Your task to perform on an android device: uninstall "VLC for Android" Image 0: 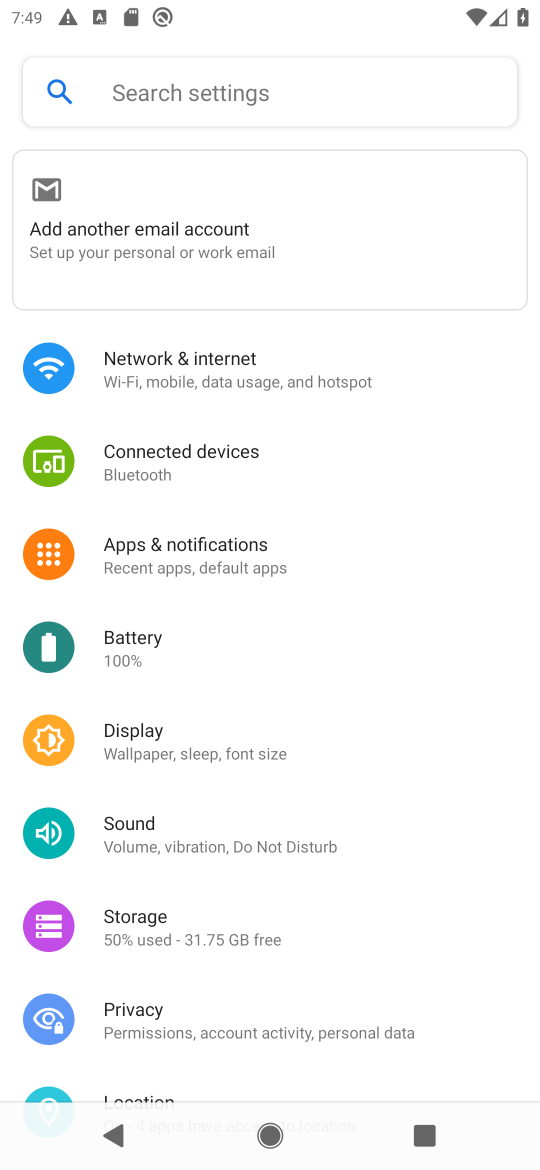
Step 0: press home button
Your task to perform on an android device: uninstall "VLC for Android" Image 1: 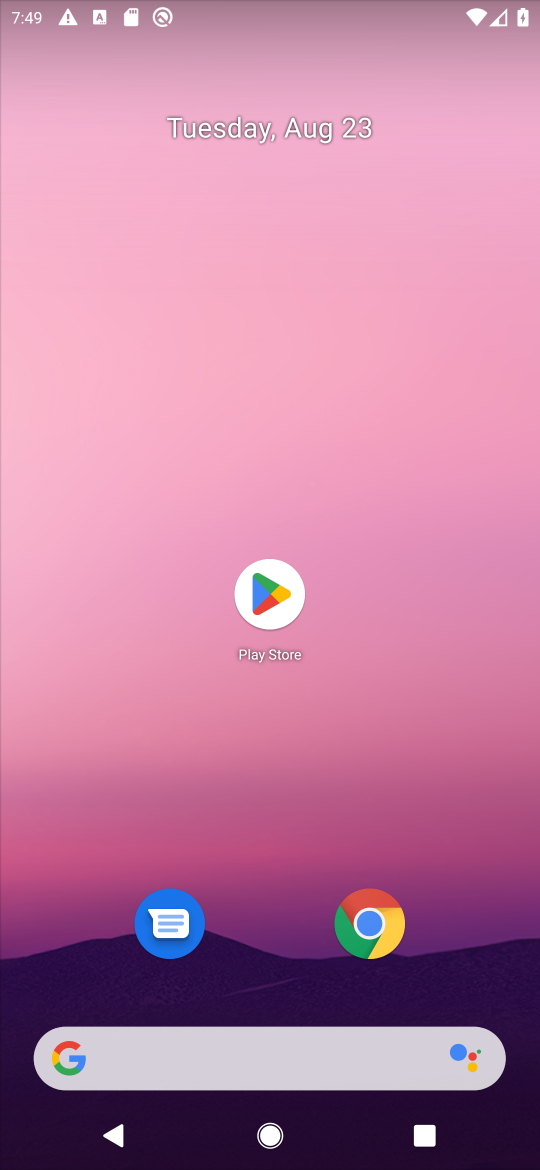
Step 1: click (272, 593)
Your task to perform on an android device: uninstall "VLC for Android" Image 2: 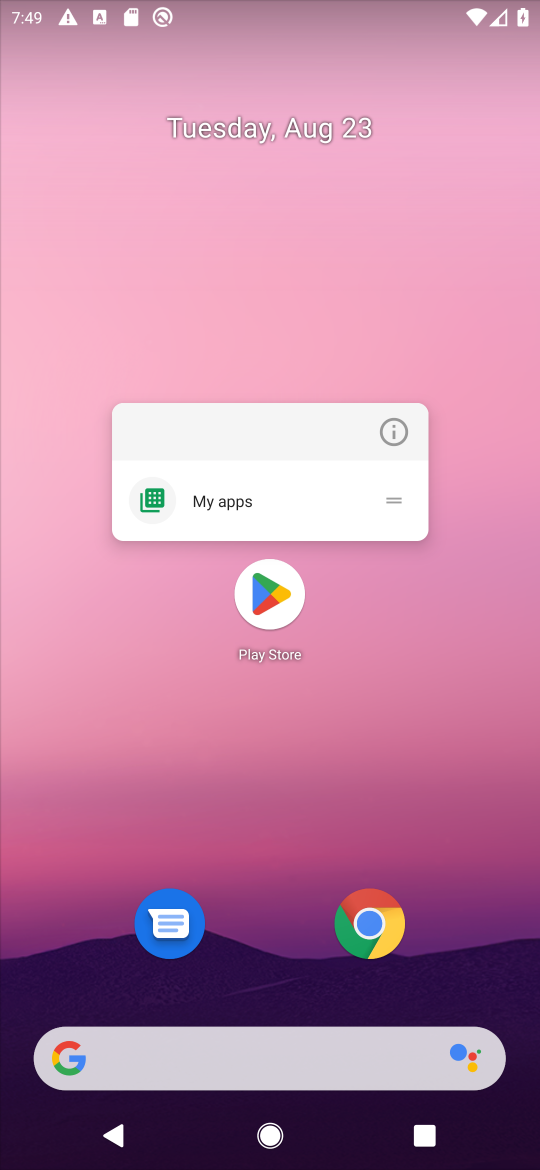
Step 2: click (263, 599)
Your task to perform on an android device: uninstall "VLC for Android" Image 3: 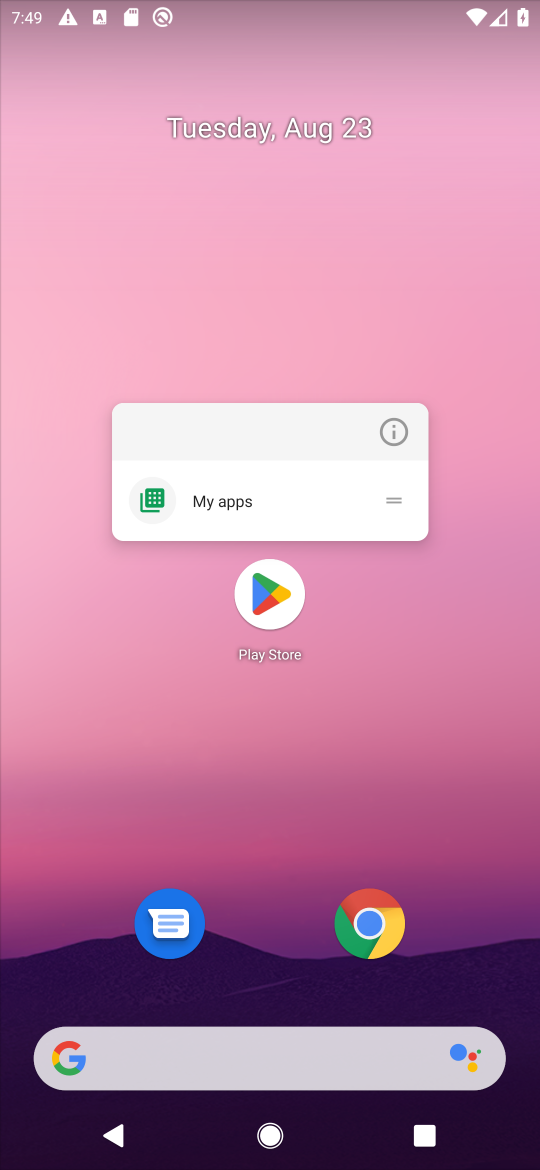
Step 3: click (262, 598)
Your task to perform on an android device: uninstall "VLC for Android" Image 4: 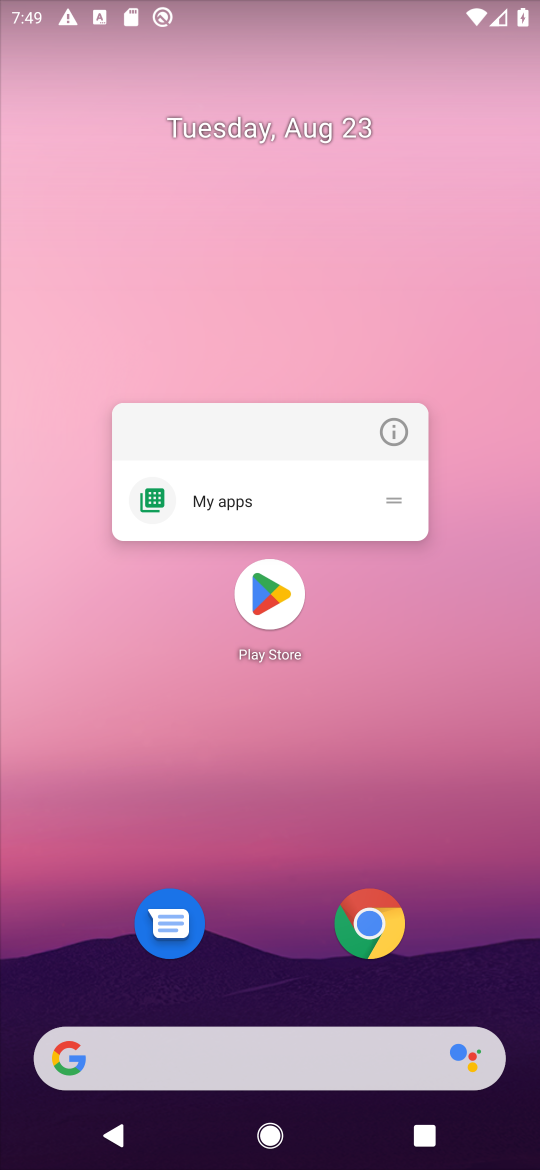
Step 4: click (260, 601)
Your task to perform on an android device: uninstall "VLC for Android" Image 5: 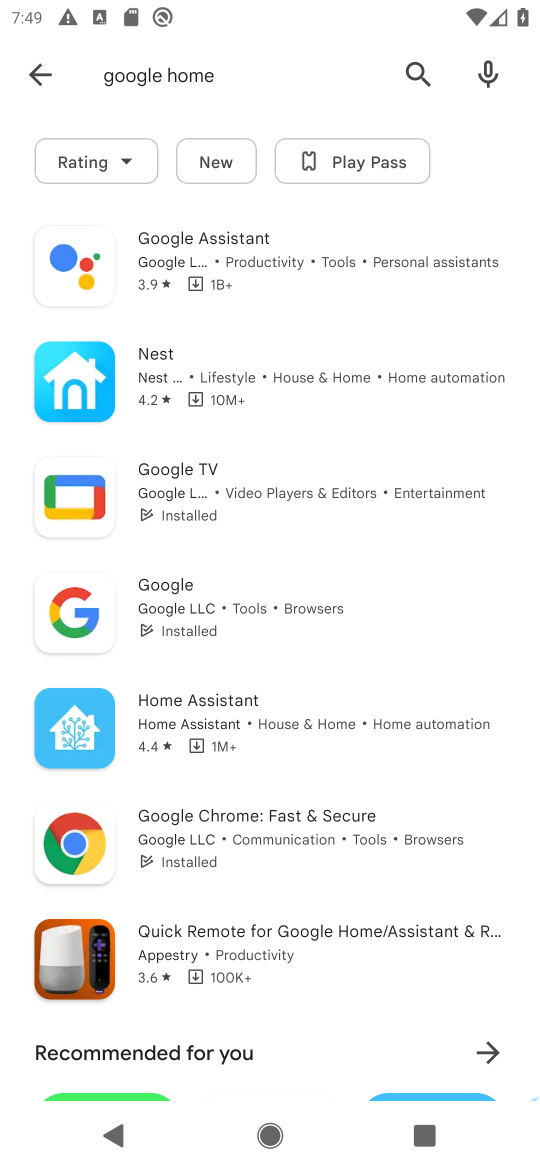
Step 5: click (418, 77)
Your task to perform on an android device: uninstall "VLC for Android" Image 6: 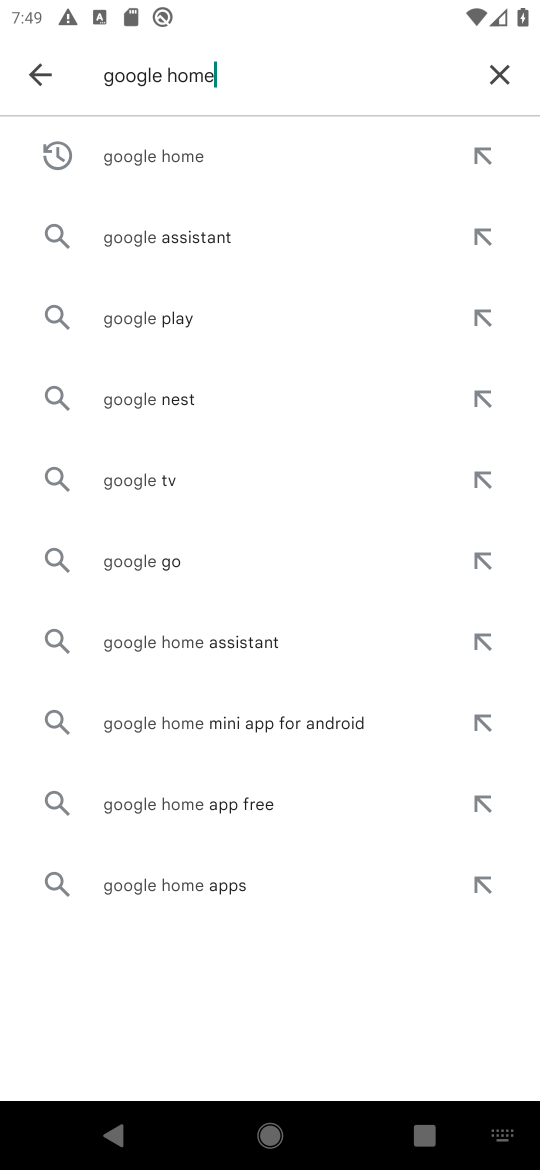
Step 6: click (497, 71)
Your task to perform on an android device: uninstall "VLC for Android" Image 7: 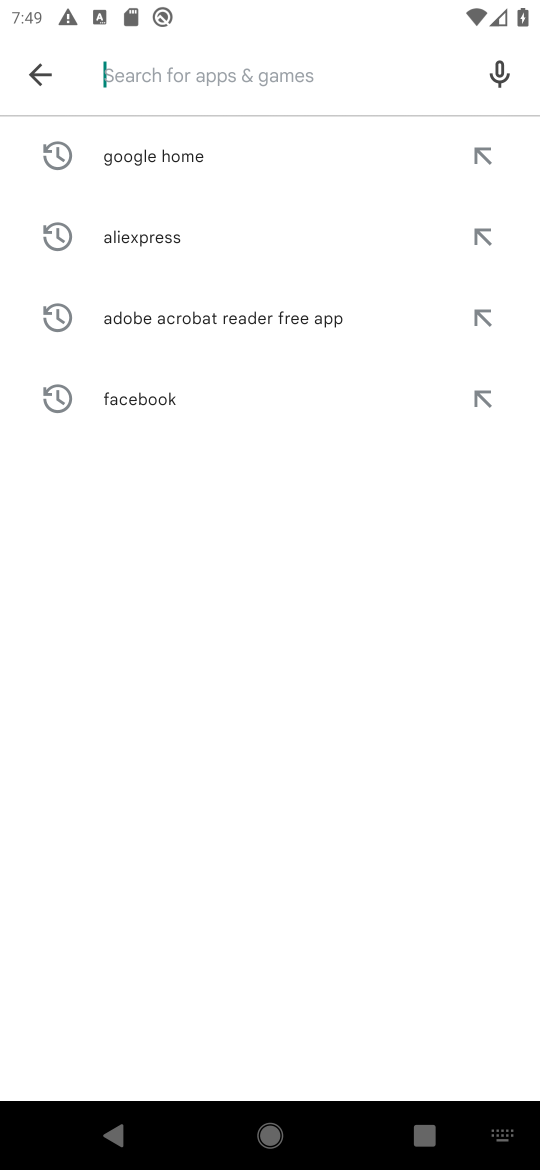
Step 7: type "VLC for Android"
Your task to perform on an android device: uninstall "VLC for Android" Image 8: 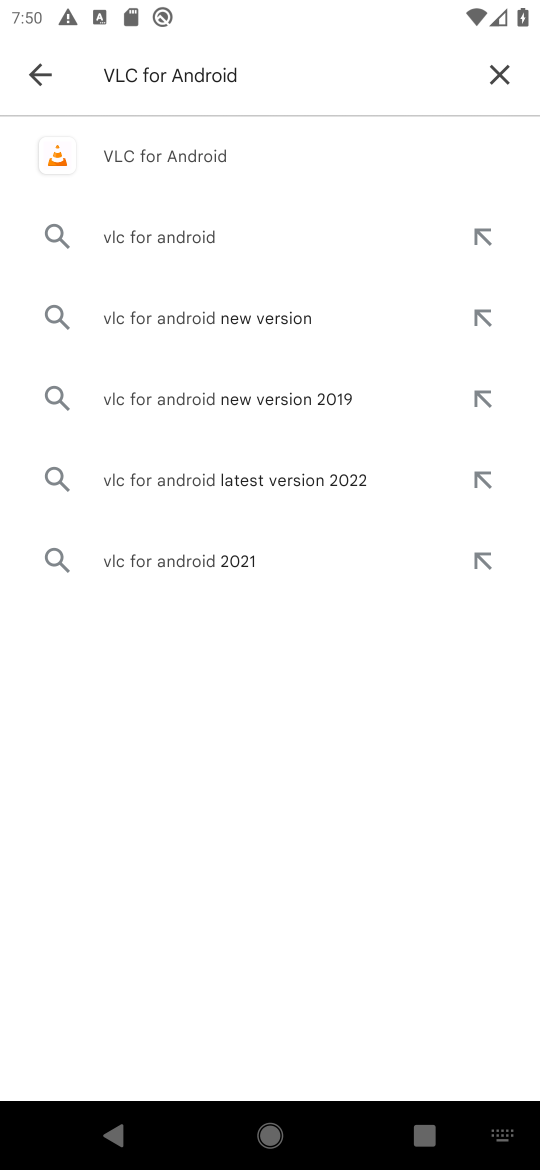
Step 8: click (146, 147)
Your task to perform on an android device: uninstall "VLC for Android" Image 9: 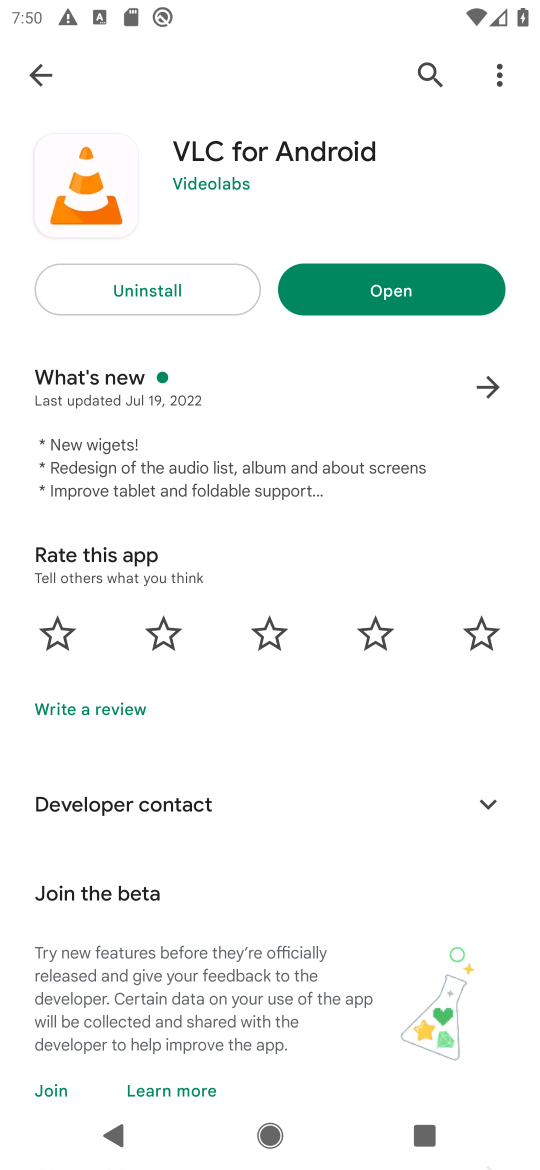
Step 9: click (171, 288)
Your task to perform on an android device: uninstall "VLC for Android" Image 10: 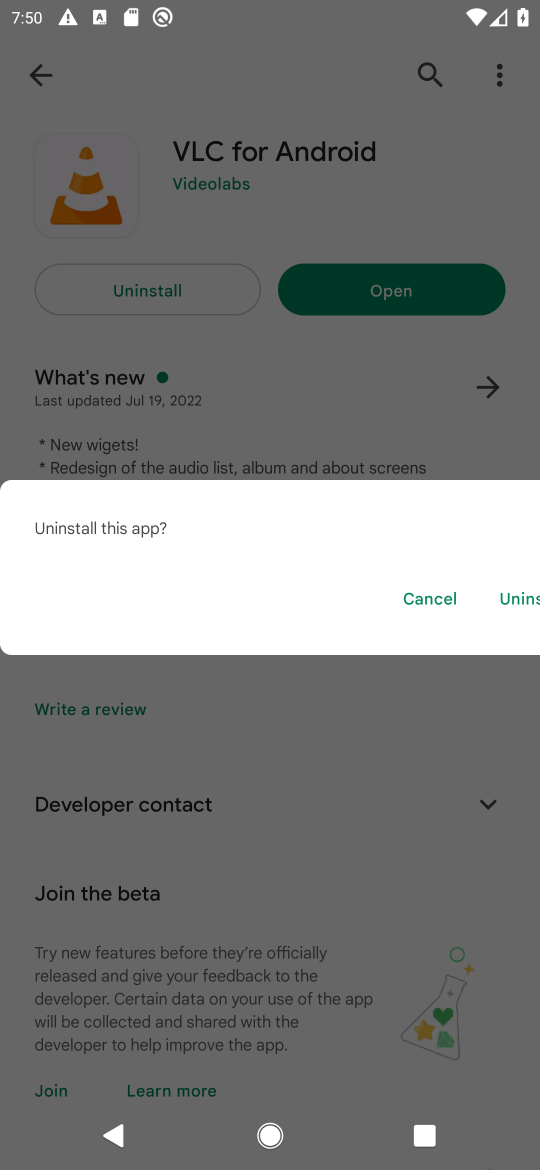
Step 10: click (519, 601)
Your task to perform on an android device: uninstall "VLC for Android" Image 11: 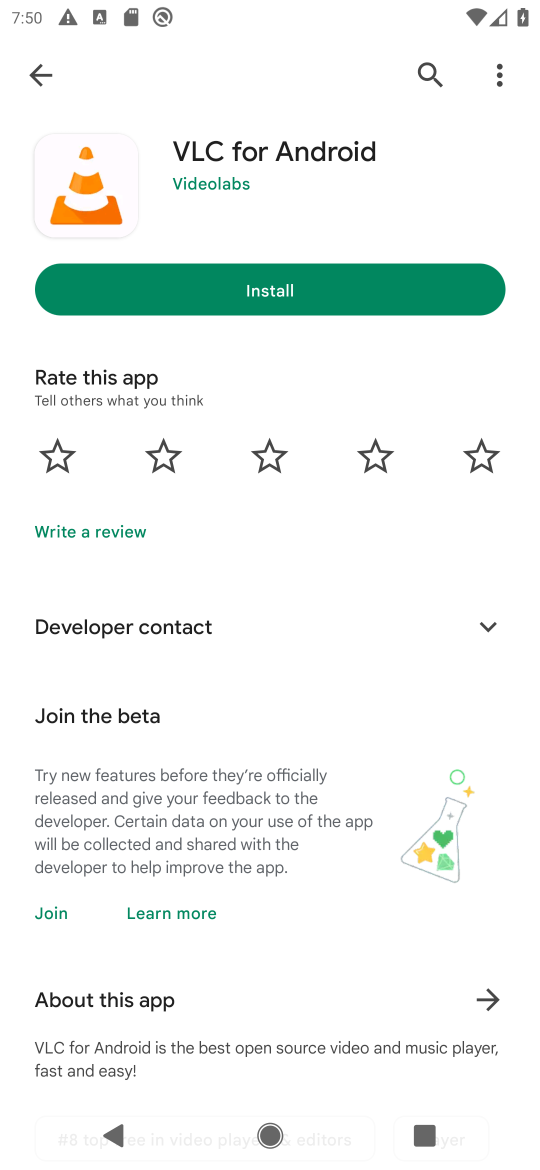
Step 11: task complete